Your task to perform on an android device: What's the news in Colombia? Image 0: 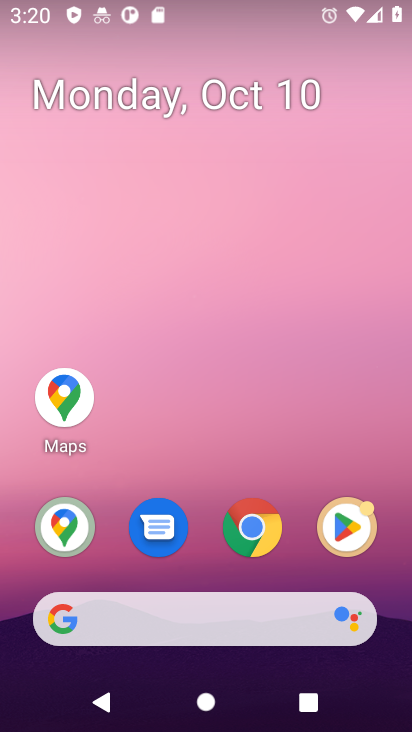
Step 0: drag from (160, 622) to (163, 172)
Your task to perform on an android device: What's the news in Colombia? Image 1: 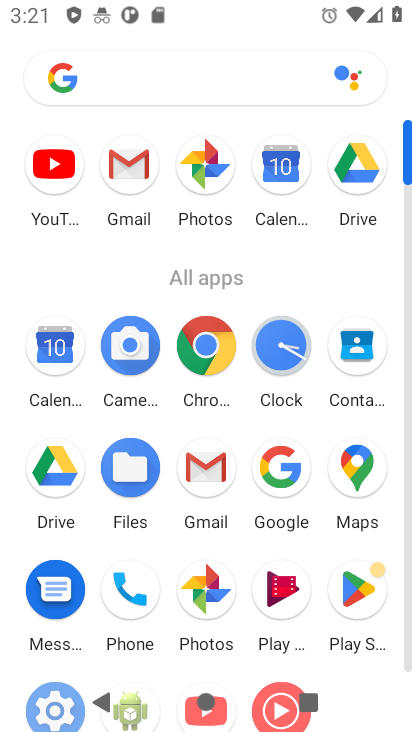
Step 1: click (206, 347)
Your task to perform on an android device: What's the news in Colombia? Image 2: 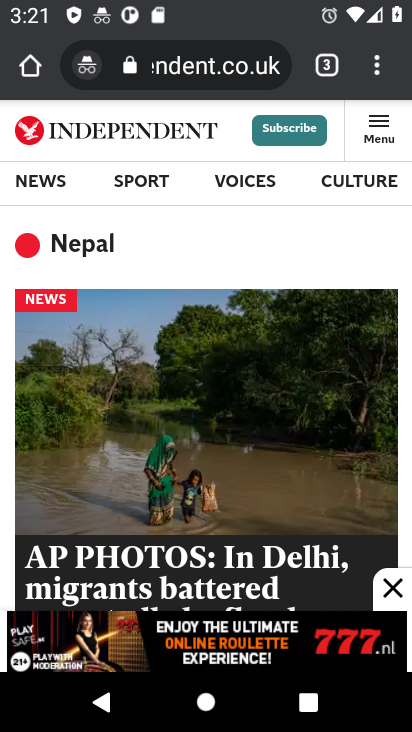
Step 2: click (233, 71)
Your task to perform on an android device: What's the news in Colombia? Image 3: 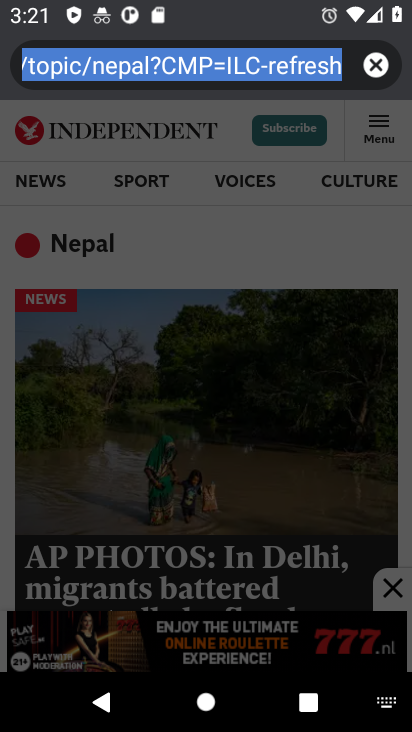
Step 3: click (372, 64)
Your task to perform on an android device: What's the news in Colombia? Image 4: 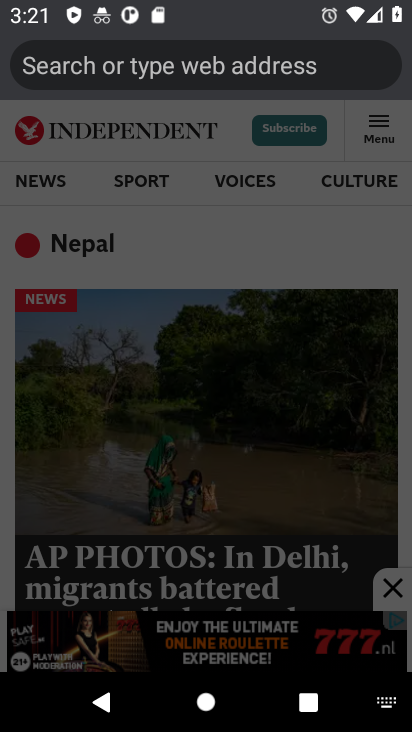
Step 4: type "What's the news in Colombia"
Your task to perform on an android device: What's the news in Colombia? Image 5: 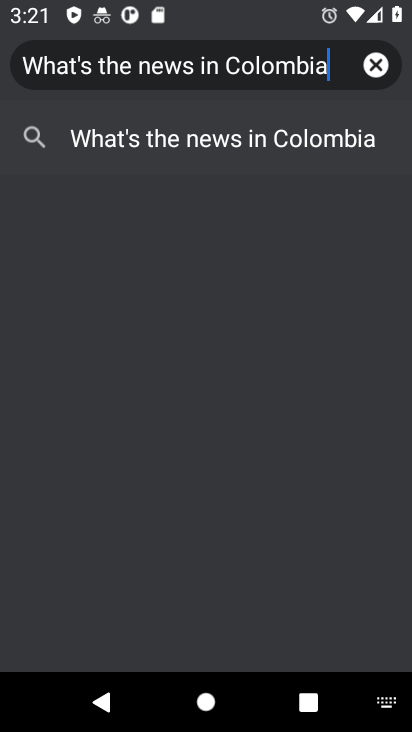
Step 5: click (190, 150)
Your task to perform on an android device: What's the news in Colombia? Image 6: 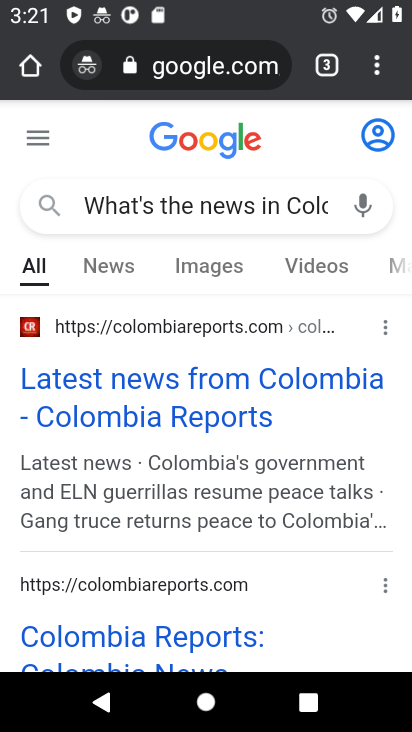
Step 6: click (159, 378)
Your task to perform on an android device: What's the news in Colombia? Image 7: 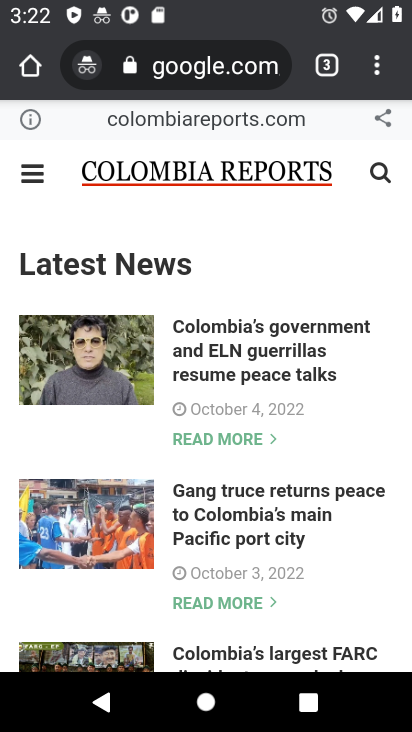
Step 7: task complete